Your task to perform on an android device: Open Google Maps and go to "Timeline" Image 0: 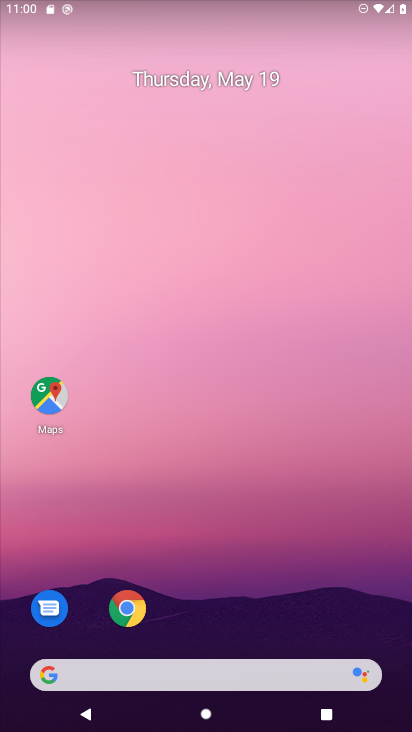
Step 0: drag from (213, 622) to (269, 114)
Your task to perform on an android device: Open Google Maps and go to "Timeline" Image 1: 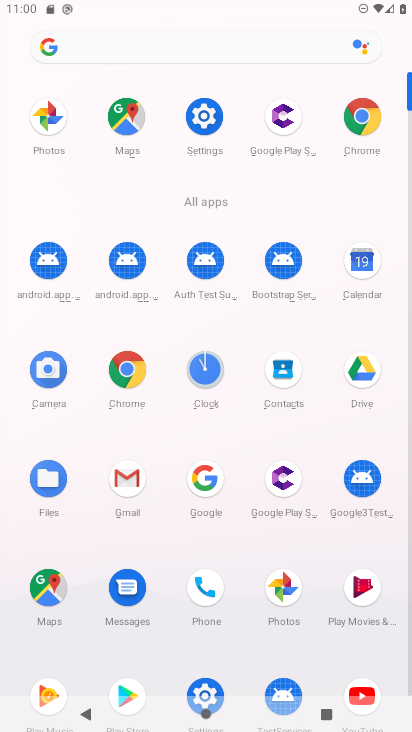
Step 1: click (145, 132)
Your task to perform on an android device: Open Google Maps and go to "Timeline" Image 2: 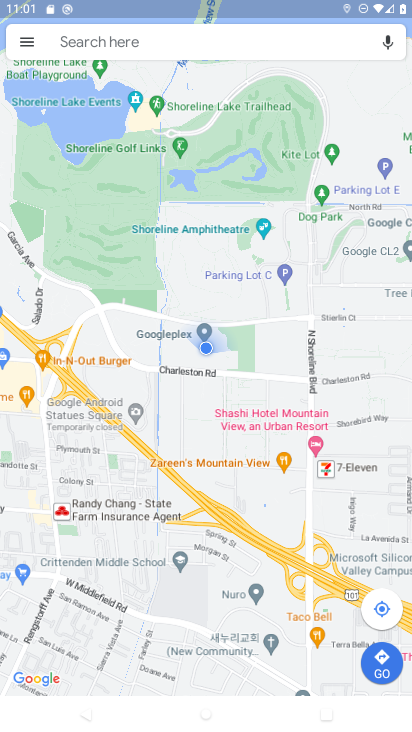
Step 2: click (94, 38)
Your task to perform on an android device: Open Google Maps and go to "Timeline" Image 3: 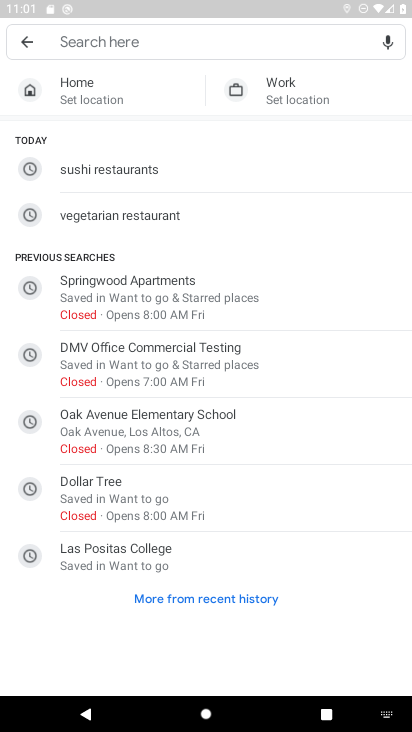
Step 3: click (18, 32)
Your task to perform on an android device: Open Google Maps and go to "Timeline" Image 4: 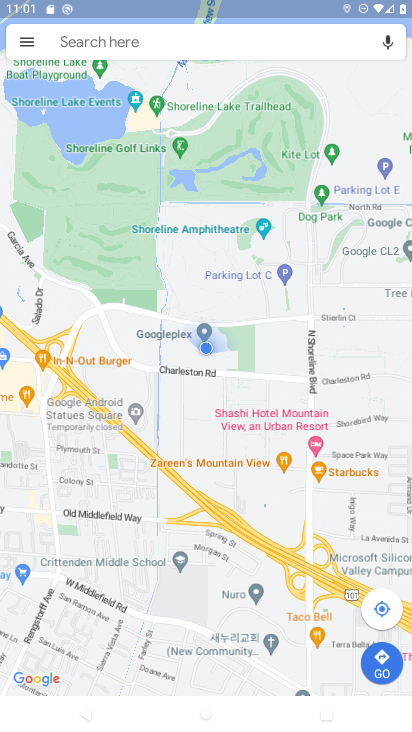
Step 4: click (18, 32)
Your task to perform on an android device: Open Google Maps and go to "Timeline" Image 5: 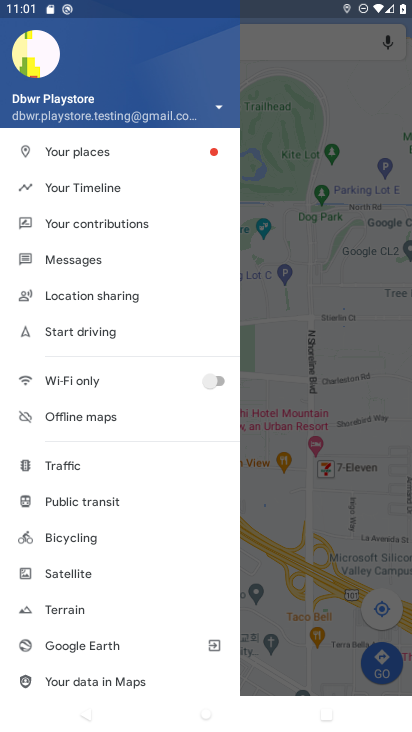
Step 5: click (73, 186)
Your task to perform on an android device: Open Google Maps and go to "Timeline" Image 6: 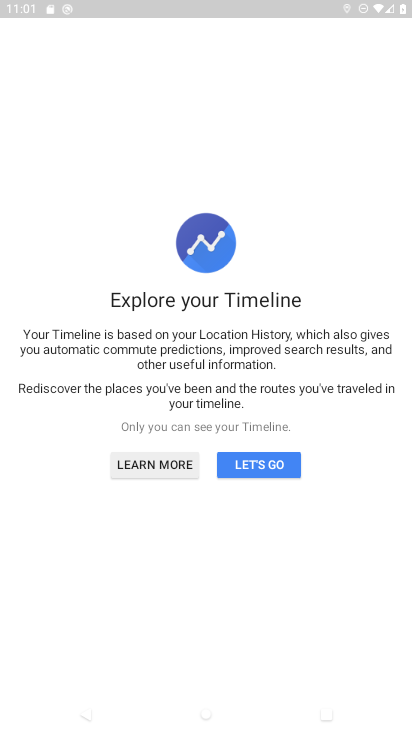
Step 6: click (239, 465)
Your task to perform on an android device: Open Google Maps and go to "Timeline" Image 7: 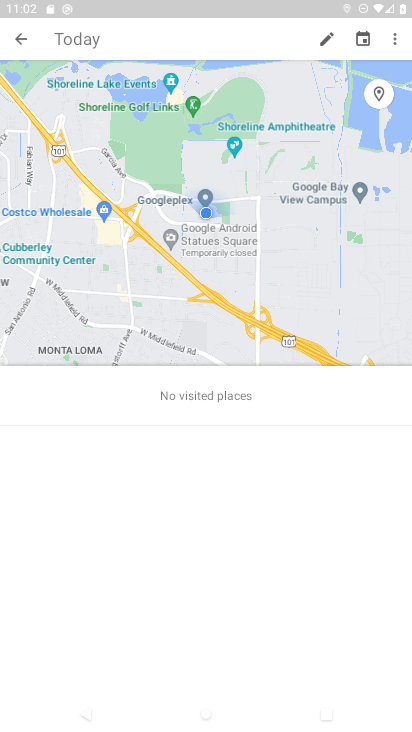
Step 7: task complete